Your task to perform on an android device: Check the weather Image 0: 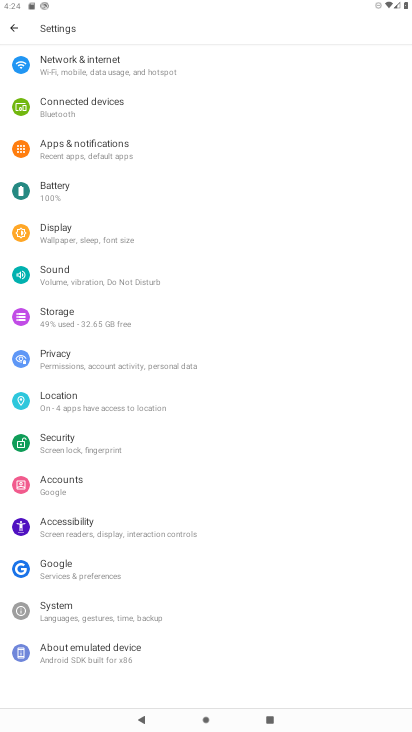
Step 0: press home button
Your task to perform on an android device: Check the weather Image 1: 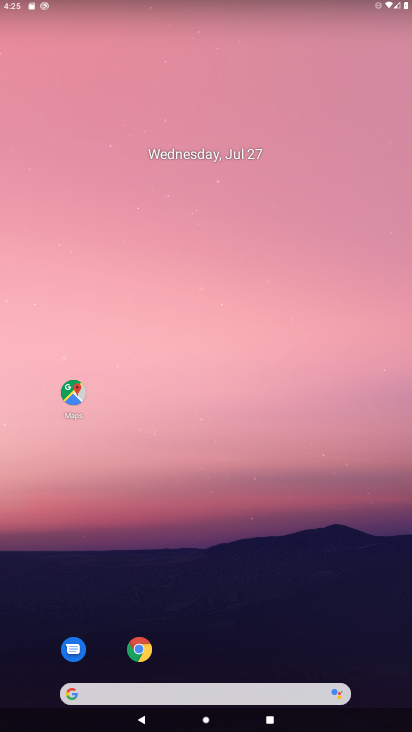
Step 1: click (219, 701)
Your task to perform on an android device: Check the weather Image 2: 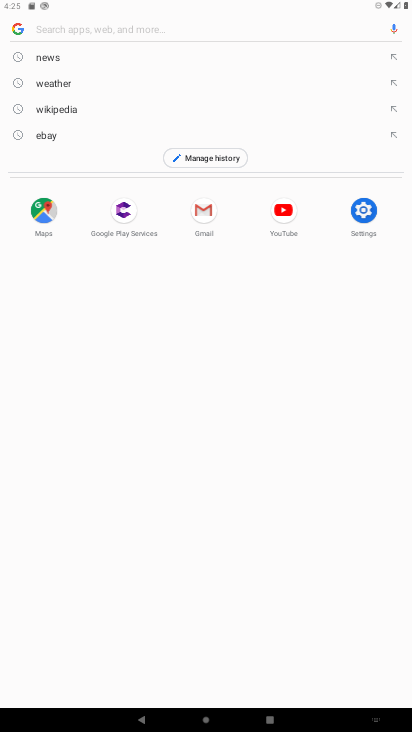
Step 2: click (53, 82)
Your task to perform on an android device: Check the weather Image 3: 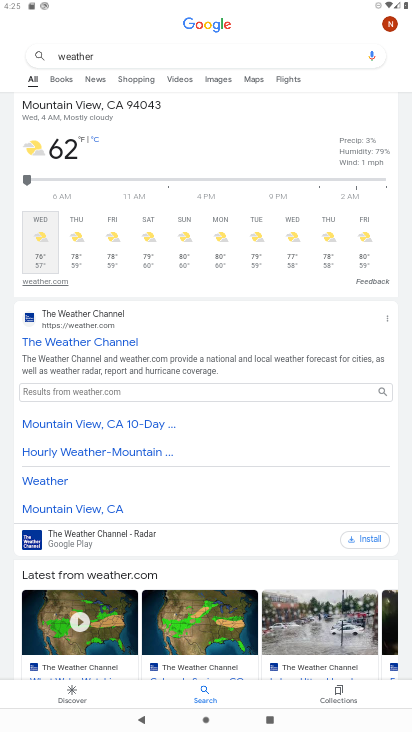
Step 3: task complete